Your task to perform on an android device: set the timer Image 0: 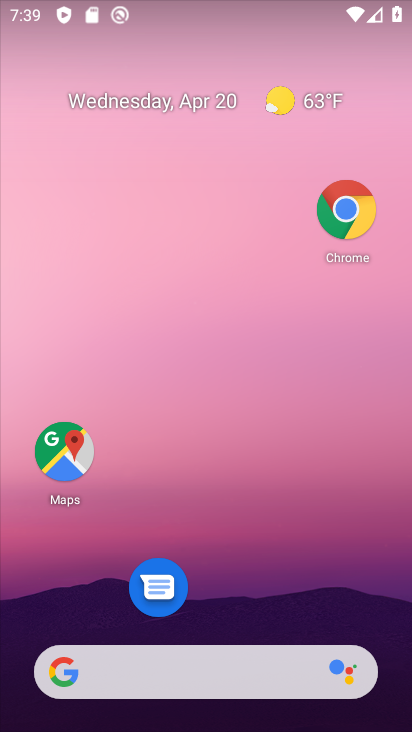
Step 0: drag from (236, 620) to (171, 95)
Your task to perform on an android device: set the timer Image 1: 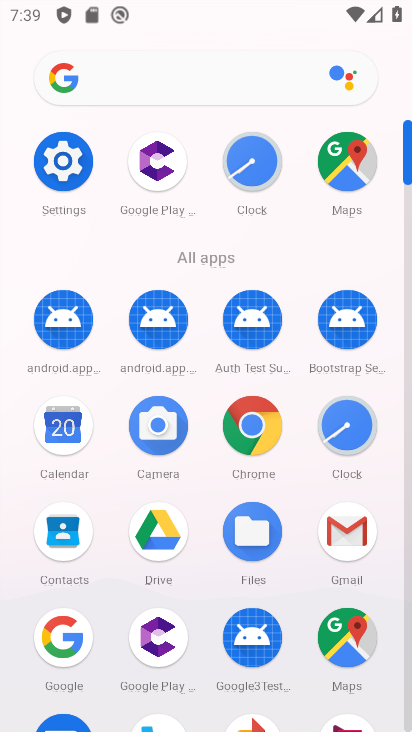
Step 1: click (245, 146)
Your task to perform on an android device: set the timer Image 2: 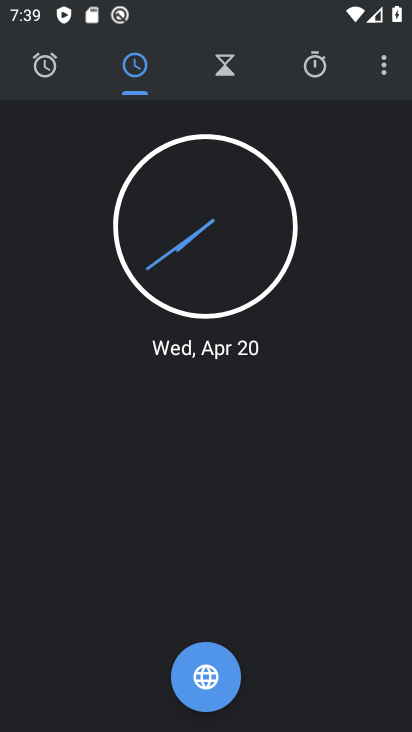
Step 2: click (225, 64)
Your task to perform on an android device: set the timer Image 3: 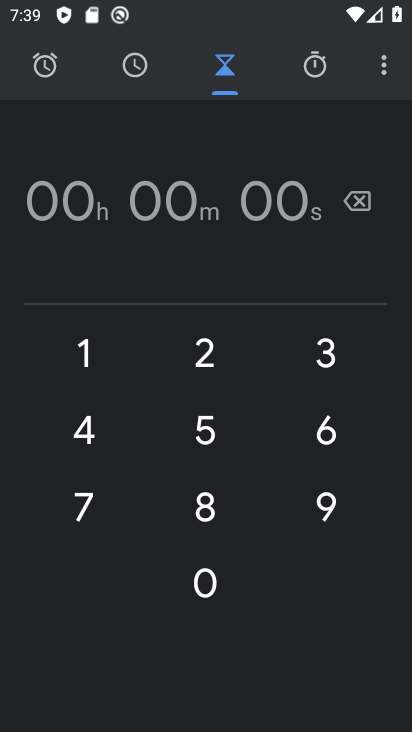
Step 3: click (333, 450)
Your task to perform on an android device: set the timer Image 4: 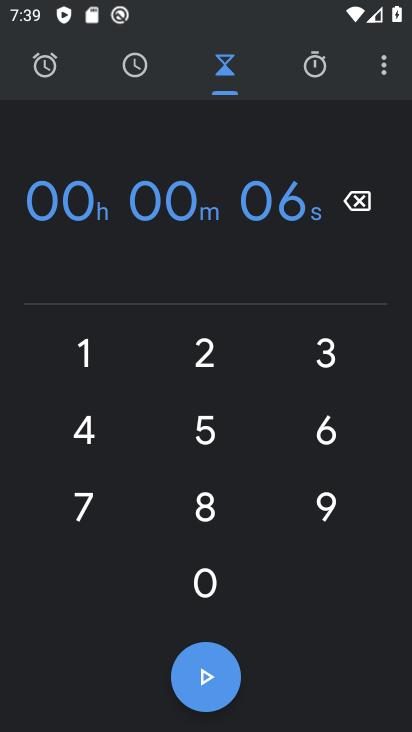
Step 4: click (189, 705)
Your task to perform on an android device: set the timer Image 5: 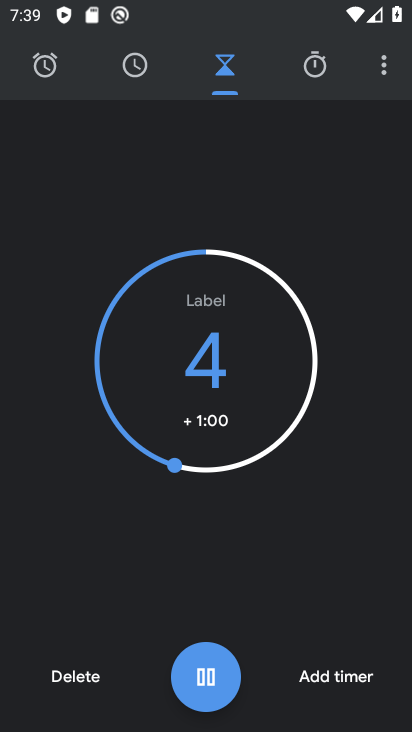
Step 5: task complete